Your task to perform on an android device: Show me recent news Image 0: 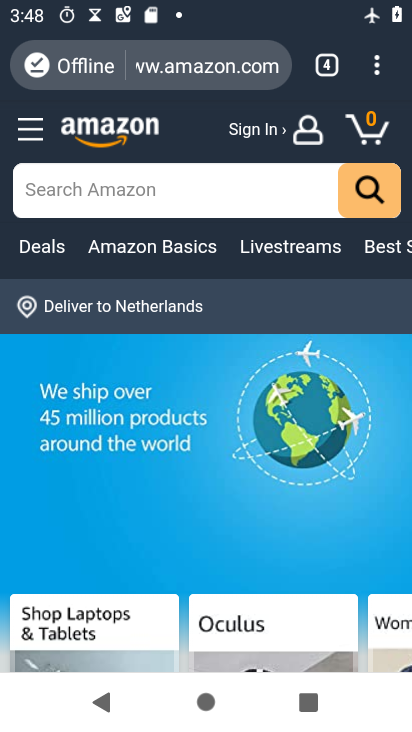
Step 0: press home button
Your task to perform on an android device: Show me recent news Image 1: 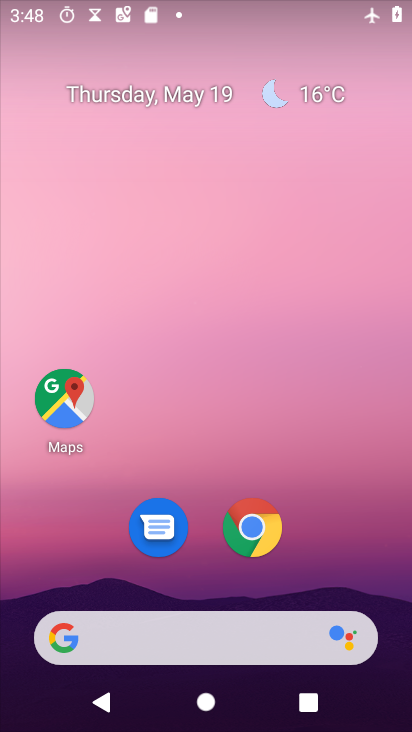
Step 1: drag from (229, 124) to (140, 5)
Your task to perform on an android device: Show me recent news Image 2: 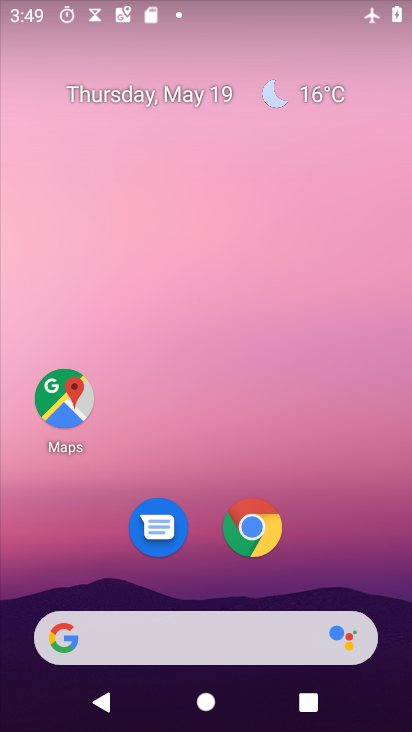
Step 2: drag from (355, 440) to (280, 64)
Your task to perform on an android device: Show me recent news Image 3: 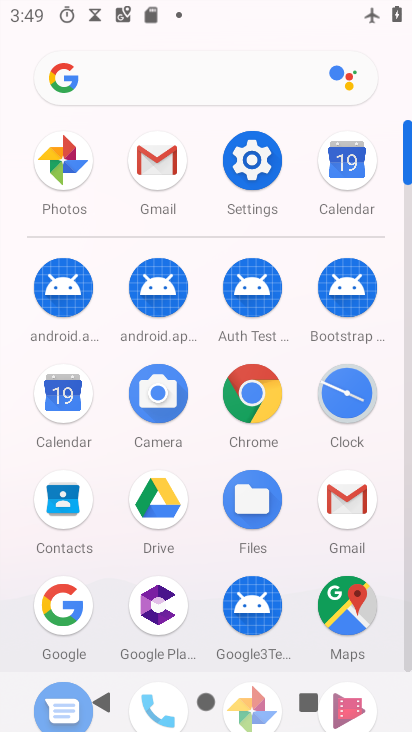
Step 3: click (71, 602)
Your task to perform on an android device: Show me recent news Image 4: 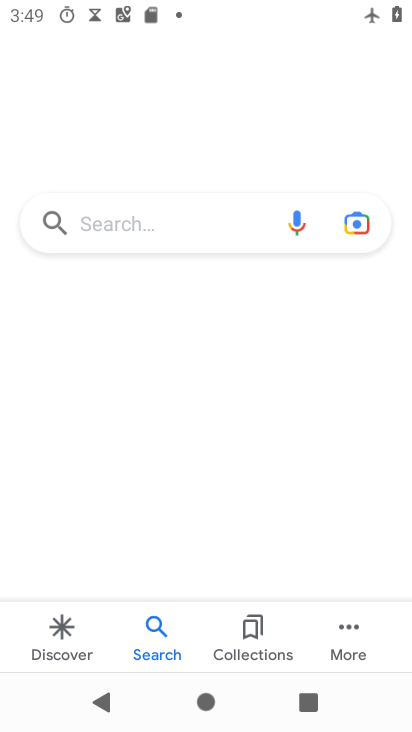
Step 4: click (139, 225)
Your task to perform on an android device: Show me recent news Image 5: 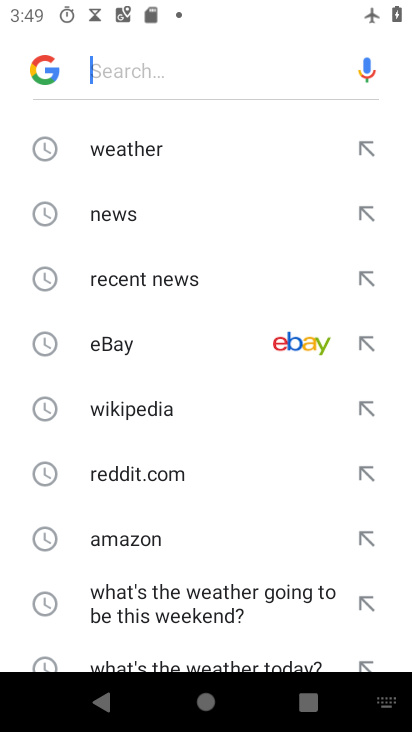
Step 5: click (196, 246)
Your task to perform on an android device: Show me recent news Image 6: 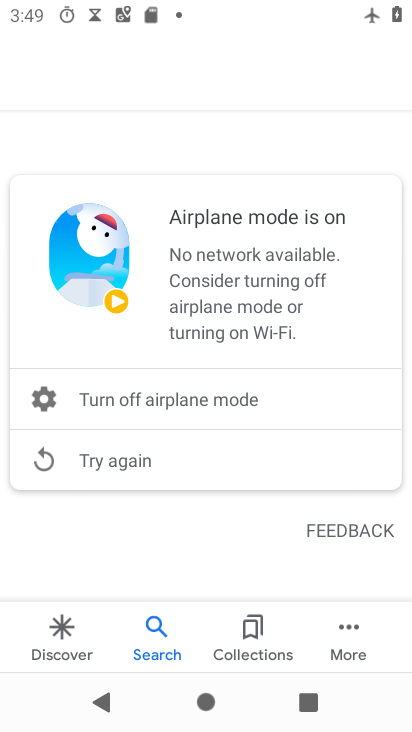
Step 6: task complete